Your task to perform on an android device: Open calendar and show me the second week of next month Image 0: 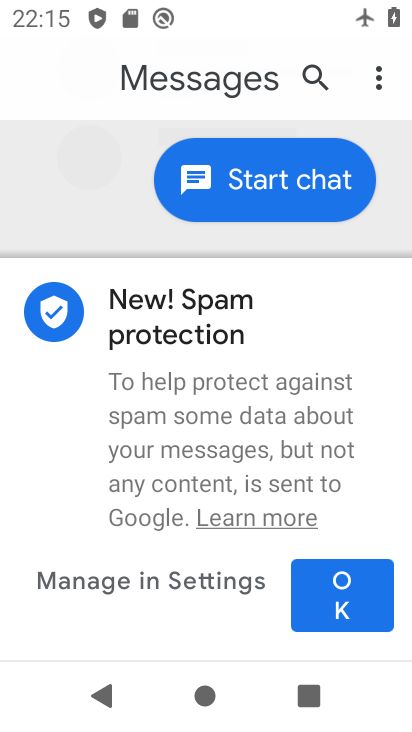
Step 0: press home button
Your task to perform on an android device: Open calendar and show me the second week of next month Image 1: 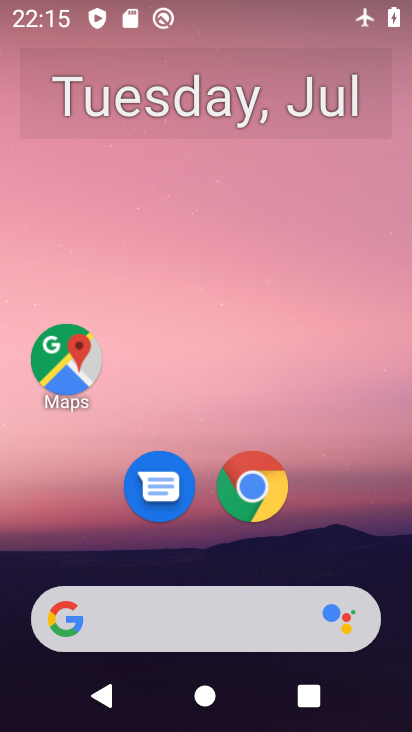
Step 1: drag from (353, 519) to (363, 148)
Your task to perform on an android device: Open calendar and show me the second week of next month Image 2: 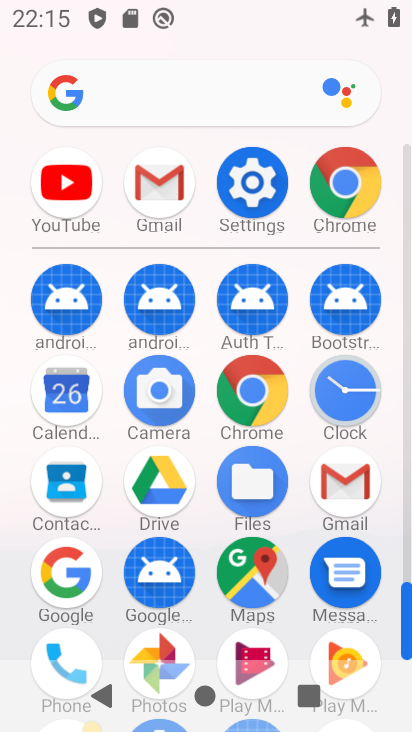
Step 2: click (77, 401)
Your task to perform on an android device: Open calendar and show me the second week of next month Image 3: 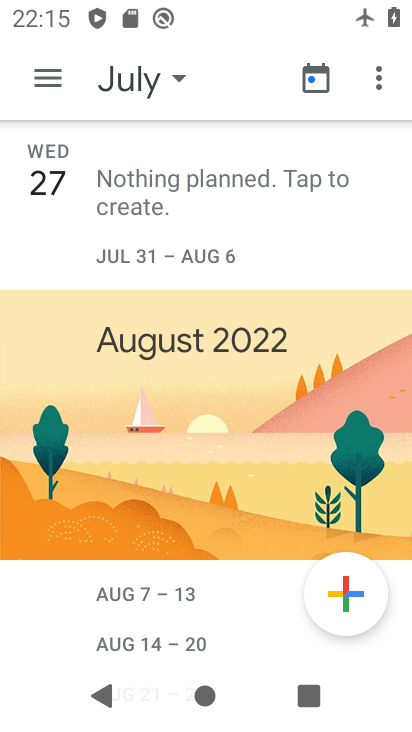
Step 3: click (177, 76)
Your task to perform on an android device: Open calendar and show me the second week of next month Image 4: 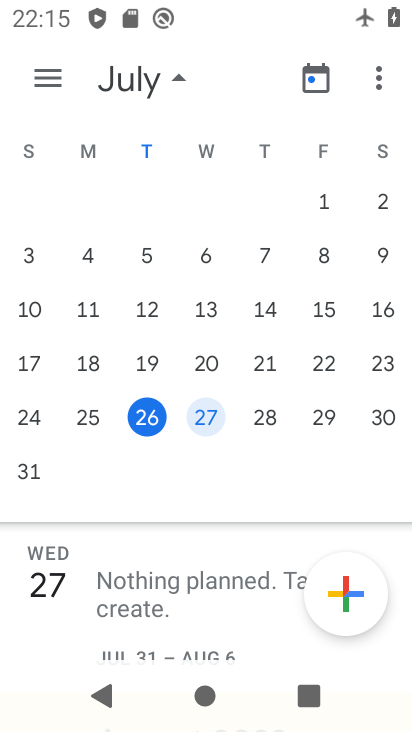
Step 4: drag from (390, 232) to (33, 205)
Your task to perform on an android device: Open calendar and show me the second week of next month Image 5: 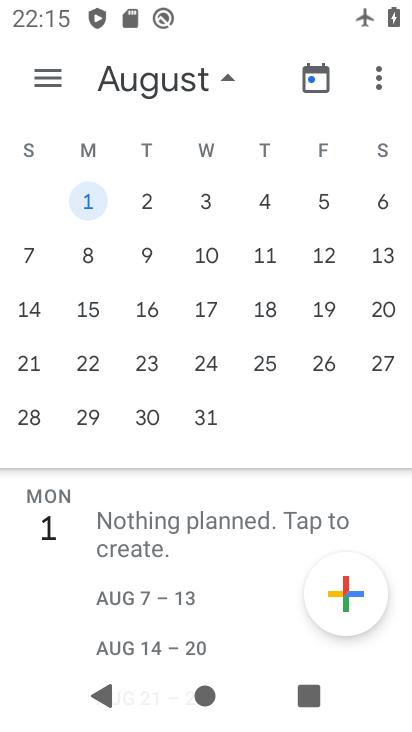
Step 5: click (93, 257)
Your task to perform on an android device: Open calendar and show me the second week of next month Image 6: 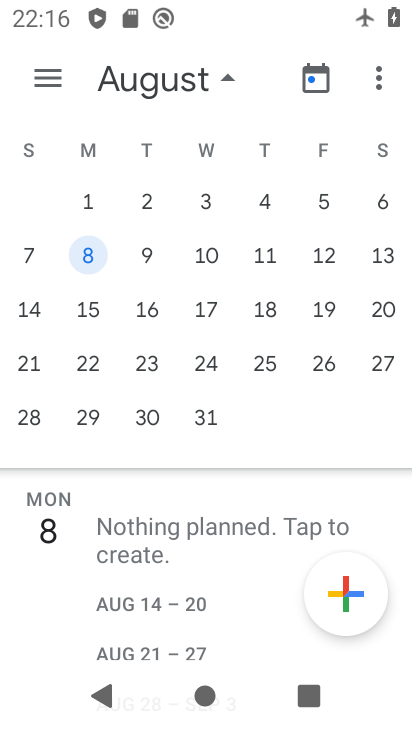
Step 6: task complete